Your task to perform on an android device: allow notifications from all sites in the chrome app Image 0: 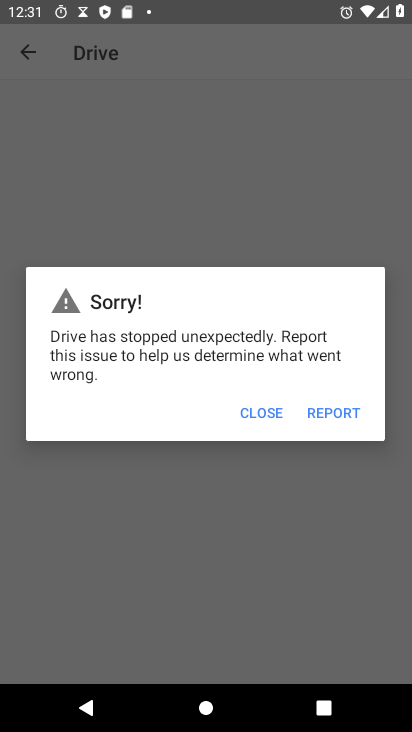
Step 0: press home button
Your task to perform on an android device: allow notifications from all sites in the chrome app Image 1: 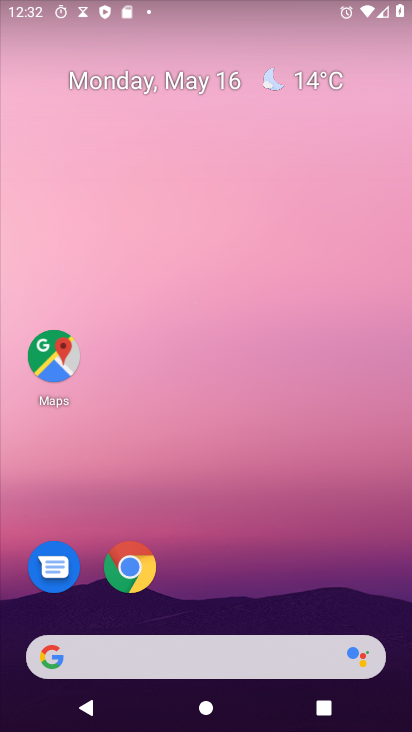
Step 1: click (128, 571)
Your task to perform on an android device: allow notifications from all sites in the chrome app Image 2: 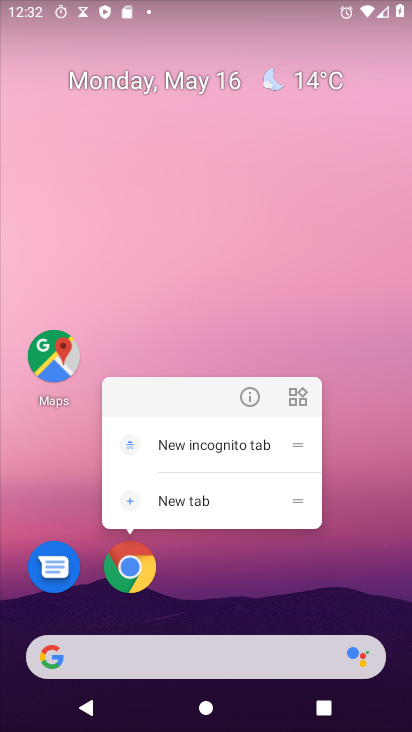
Step 2: click (132, 574)
Your task to perform on an android device: allow notifications from all sites in the chrome app Image 3: 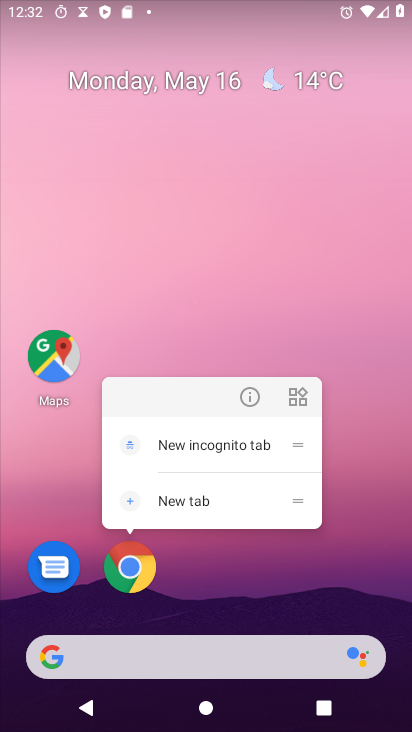
Step 3: click (136, 573)
Your task to perform on an android device: allow notifications from all sites in the chrome app Image 4: 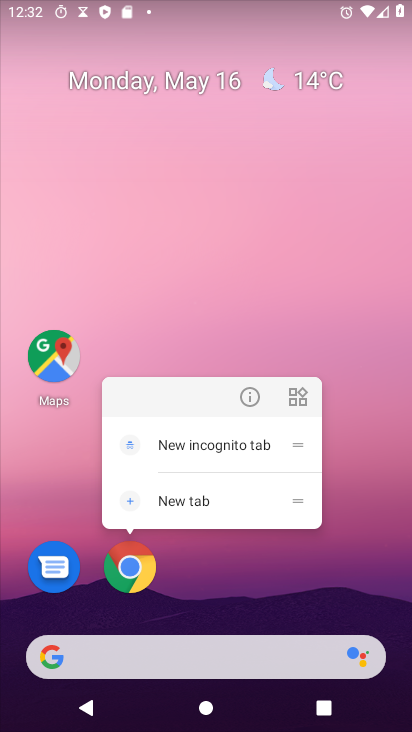
Step 4: click (133, 567)
Your task to perform on an android device: allow notifications from all sites in the chrome app Image 5: 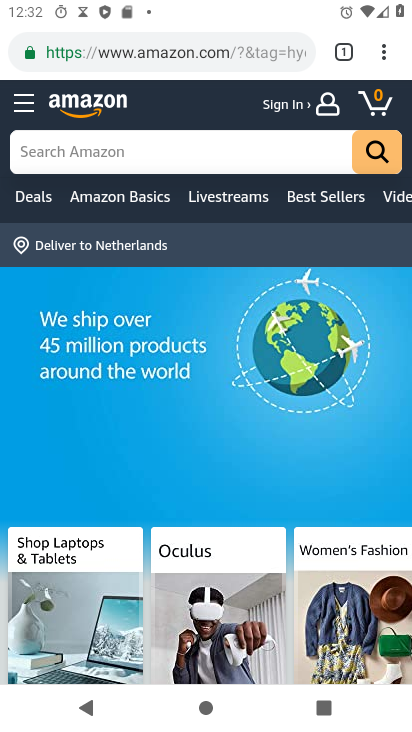
Step 5: click (388, 48)
Your task to perform on an android device: allow notifications from all sites in the chrome app Image 6: 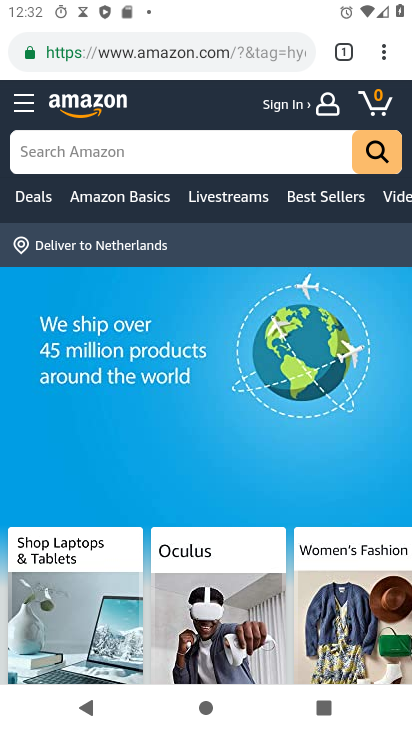
Step 6: click (388, 48)
Your task to perform on an android device: allow notifications from all sites in the chrome app Image 7: 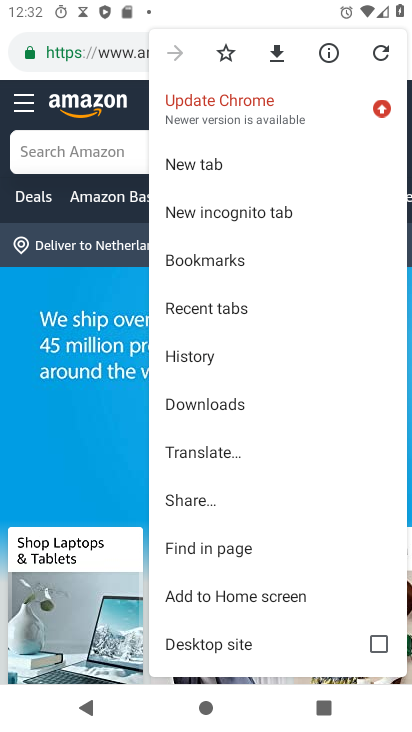
Step 7: drag from (276, 628) to (263, 305)
Your task to perform on an android device: allow notifications from all sites in the chrome app Image 8: 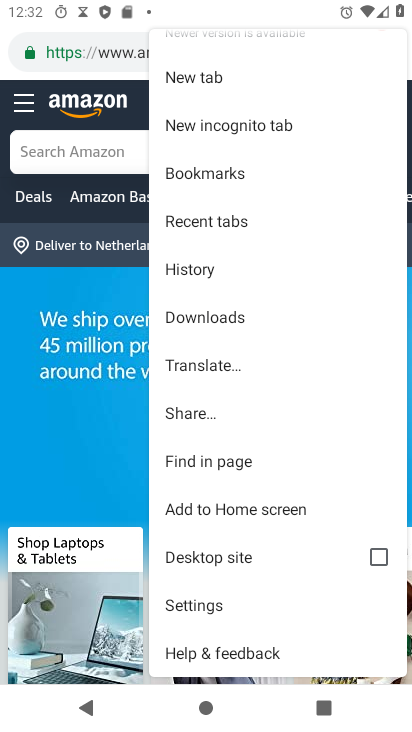
Step 8: click (200, 611)
Your task to perform on an android device: allow notifications from all sites in the chrome app Image 9: 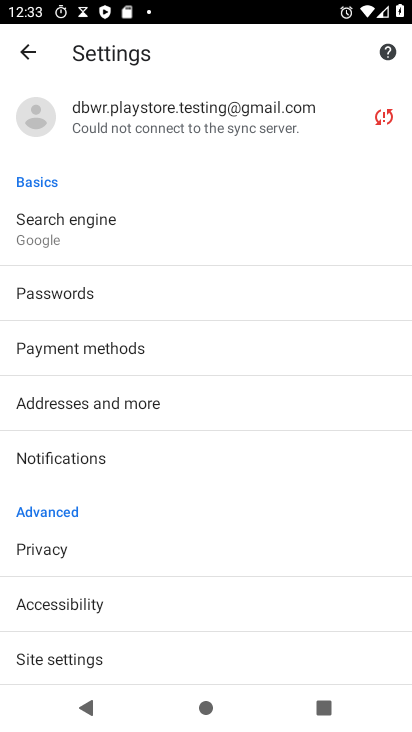
Step 9: drag from (195, 636) to (201, 448)
Your task to perform on an android device: allow notifications from all sites in the chrome app Image 10: 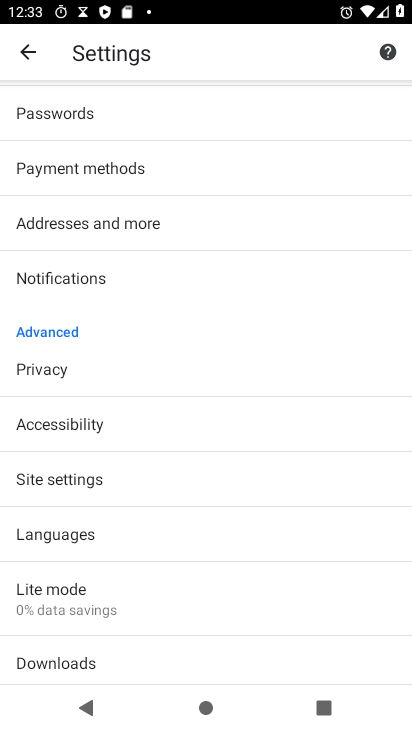
Step 10: click (95, 271)
Your task to perform on an android device: allow notifications from all sites in the chrome app Image 11: 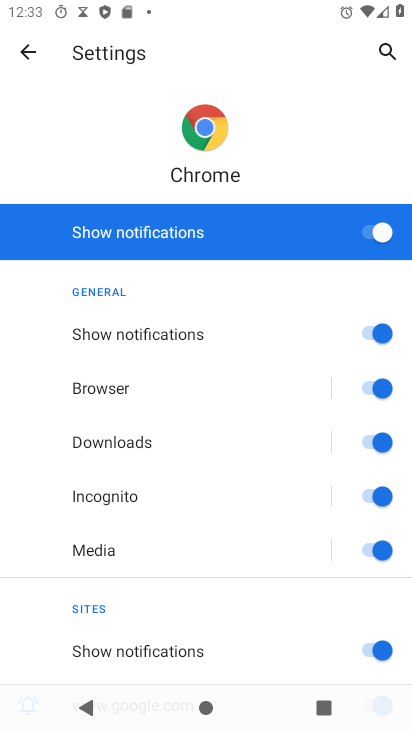
Step 11: task complete